Your task to perform on an android device: Go to Android settings Image 0: 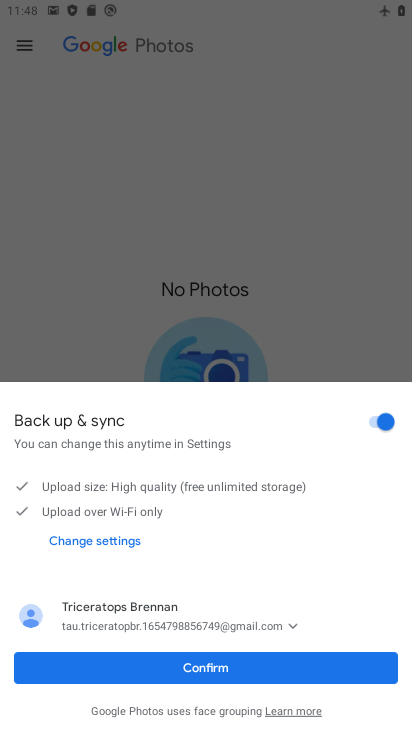
Step 0: press home button
Your task to perform on an android device: Go to Android settings Image 1: 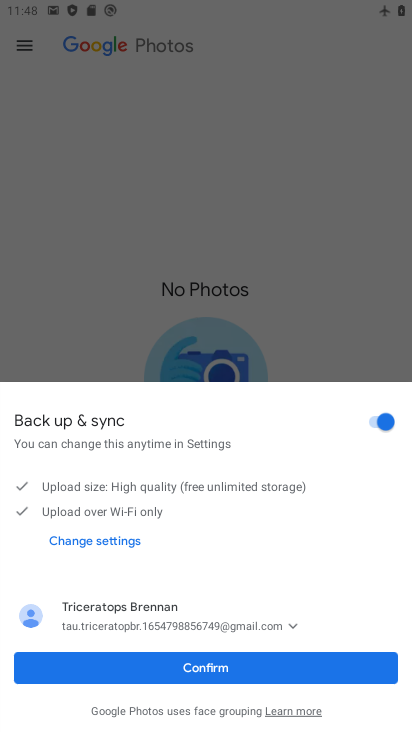
Step 1: drag from (147, 421) to (143, 329)
Your task to perform on an android device: Go to Android settings Image 2: 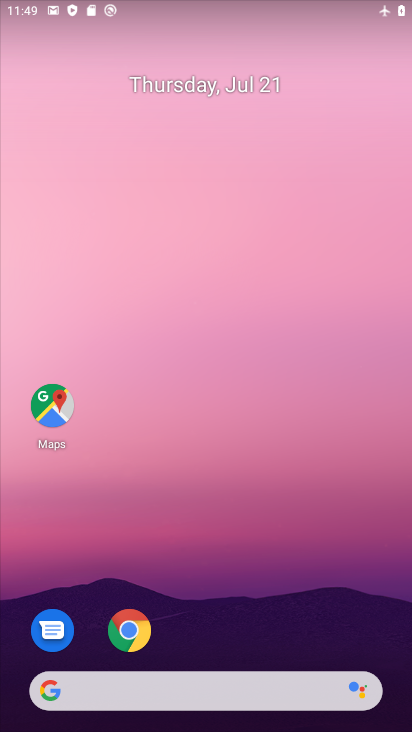
Step 2: drag from (226, 621) to (149, 41)
Your task to perform on an android device: Go to Android settings Image 3: 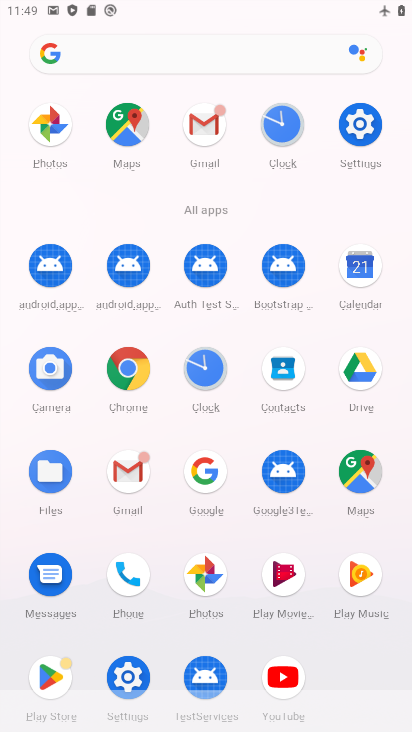
Step 3: click (356, 116)
Your task to perform on an android device: Go to Android settings Image 4: 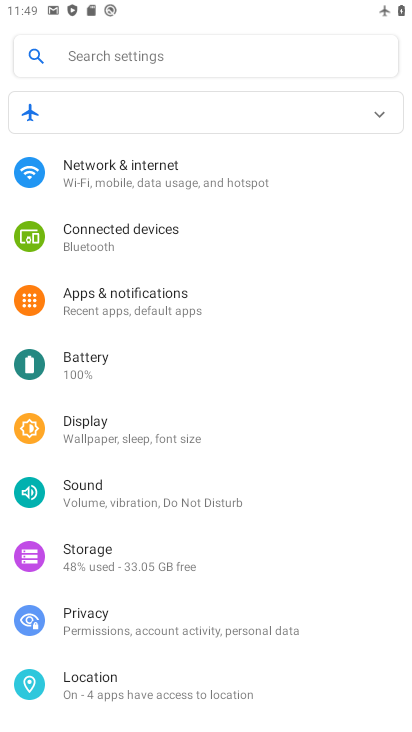
Step 4: drag from (149, 525) to (255, 189)
Your task to perform on an android device: Go to Android settings Image 5: 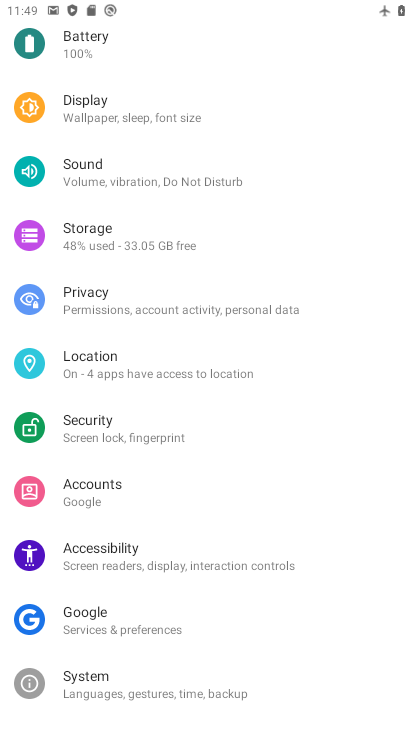
Step 5: drag from (155, 685) to (223, 254)
Your task to perform on an android device: Go to Android settings Image 6: 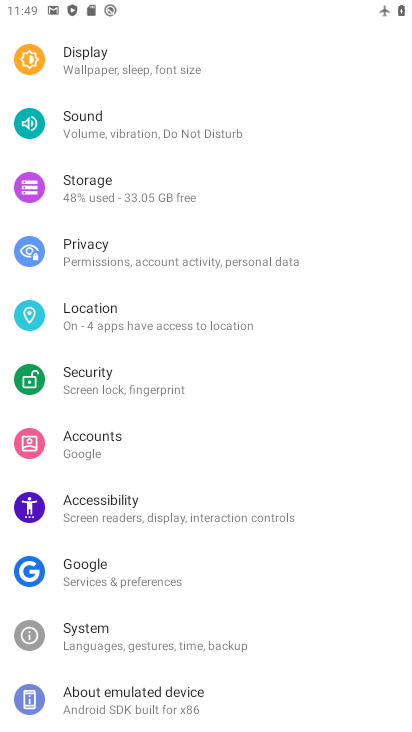
Step 6: click (191, 694)
Your task to perform on an android device: Go to Android settings Image 7: 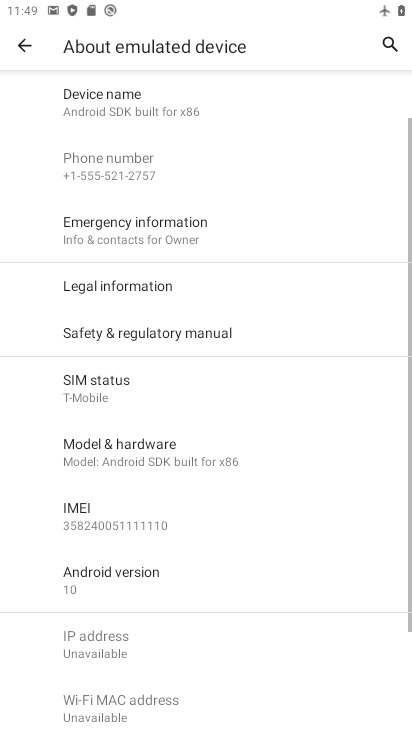
Step 7: click (135, 577)
Your task to perform on an android device: Go to Android settings Image 8: 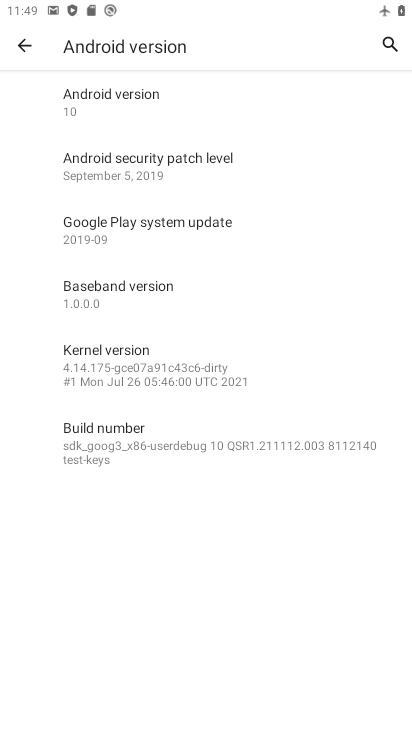
Step 8: task complete